Your task to perform on an android device: Open Android settings Image 0: 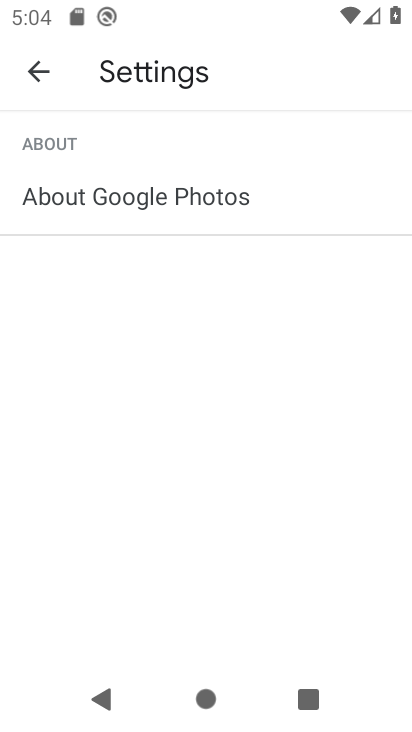
Step 0: press home button
Your task to perform on an android device: Open Android settings Image 1: 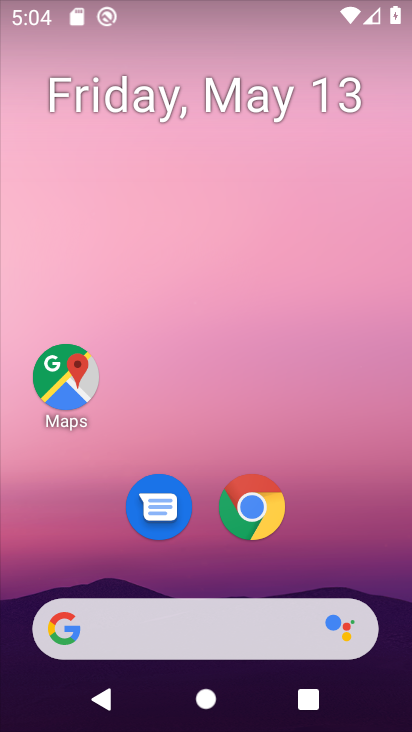
Step 1: drag from (325, 536) to (230, 56)
Your task to perform on an android device: Open Android settings Image 2: 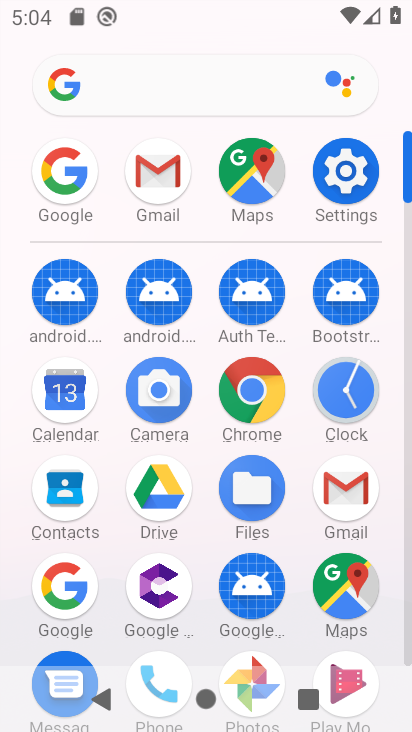
Step 2: click (347, 174)
Your task to perform on an android device: Open Android settings Image 3: 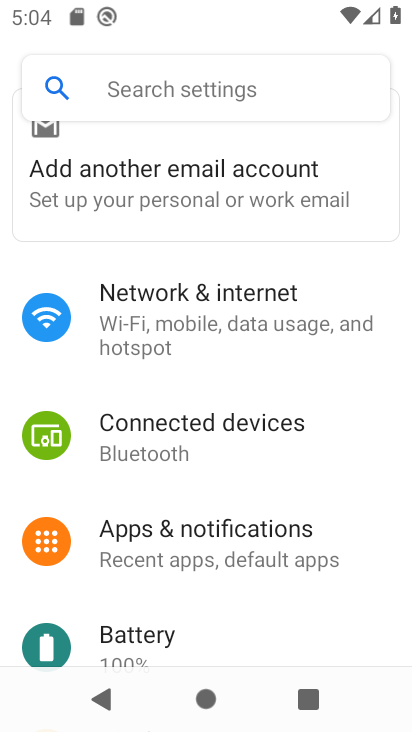
Step 3: drag from (239, 627) to (210, 107)
Your task to perform on an android device: Open Android settings Image 4: 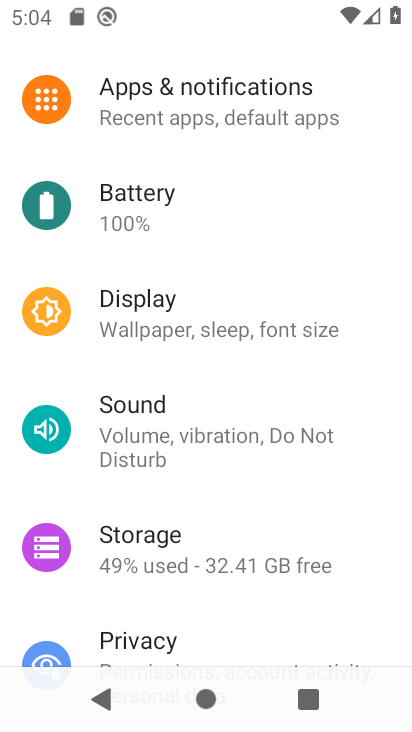
Step 4: drag from (219, 586) to (201, 108)
Your task to perform on an android device: Open Android settings Image 5: 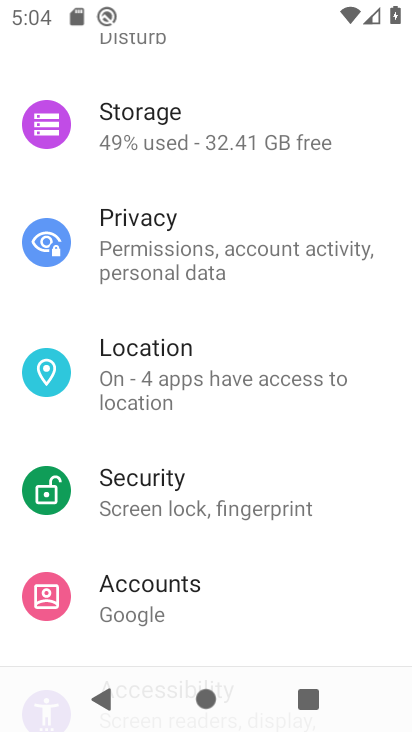
Step 5: drag from (253, 597) to (219, 95)
Your task to perform on an android device: Open Android settings Image 6: 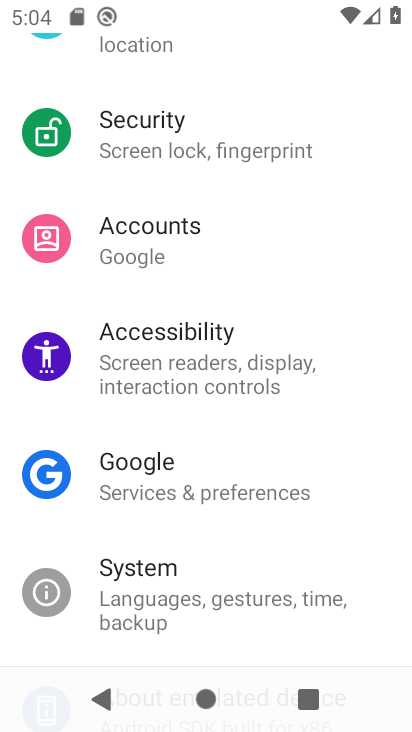
Step 6: drag from (244, 578) to (211, 146)
Your task to perform on an android device: Open Android settings Image 7: 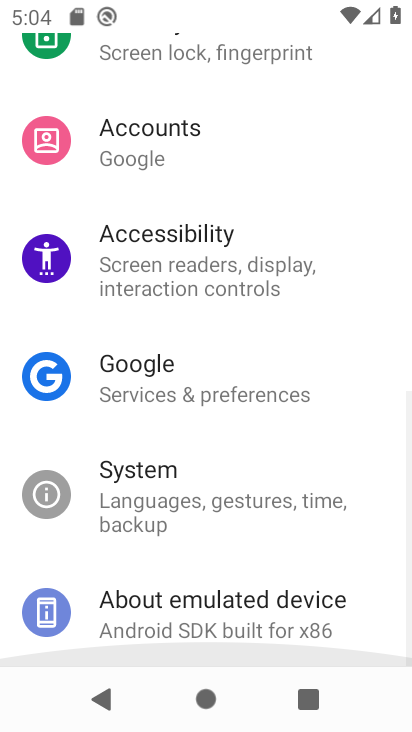
Step 7: click (214, 606)
Your task to perform on an android device: Open Android settings Image 8: 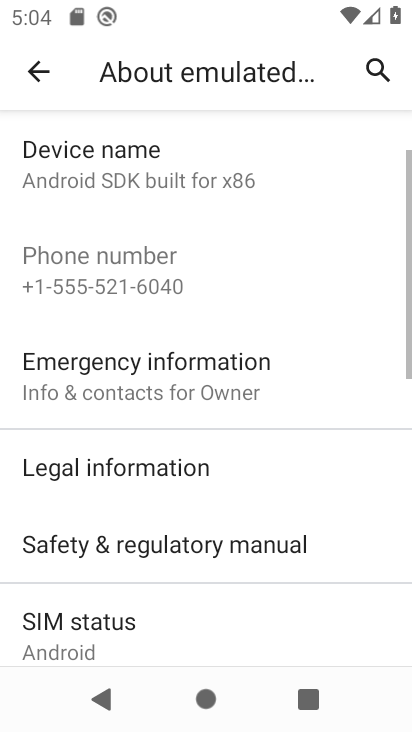
Step 8: drag from (171, 609) to (178, 229)
Your task to perform on an android device: Open Android settings Image 9: 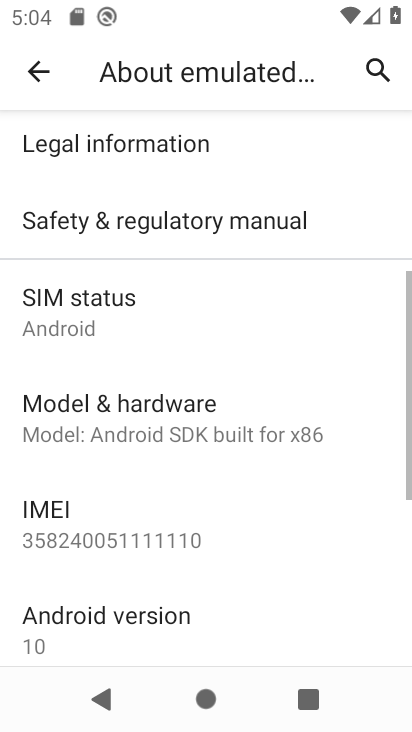
Step 9: click (154, 624)
Your task to perform on an android device: Open Android settings Image 10: 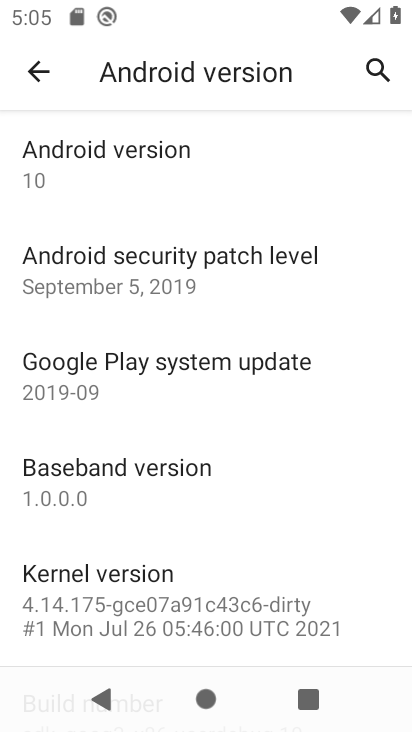
Step 10: task complete